Your task to perform on an android device: turn notification dots off Image 0: 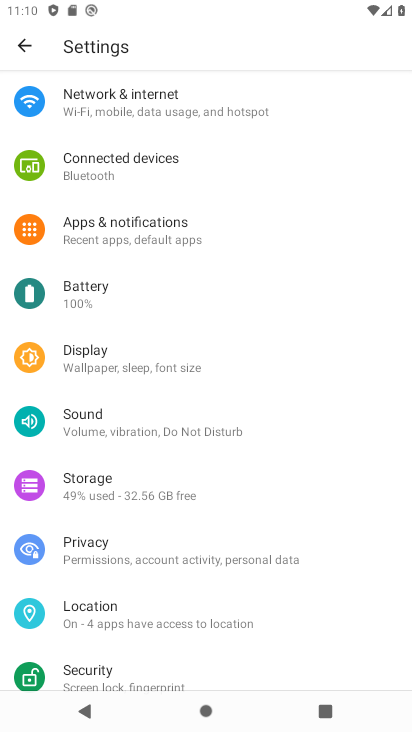
Step 0: click (152, 241)
Your task to perform on an android device: turn notification dots off Image 1: 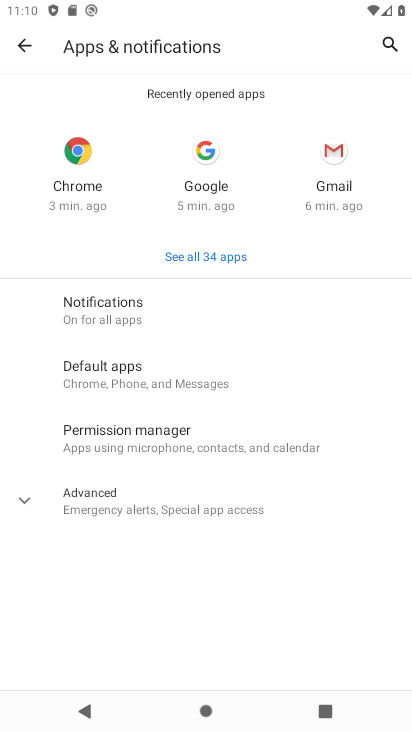
Step 1: click (136, 324)
Your task to perform on an android device: turn notification dots off Image 2: 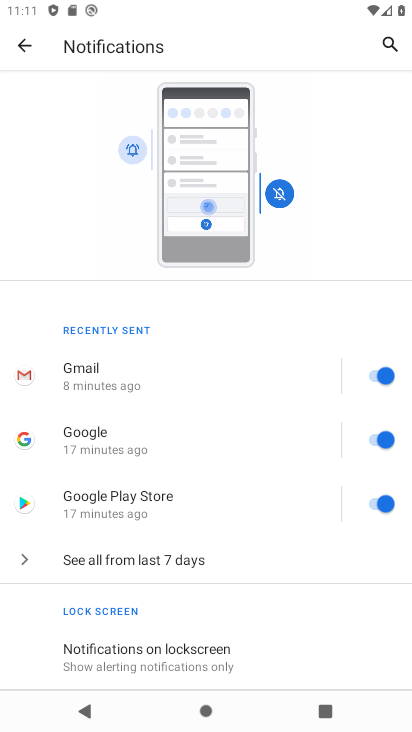
Step 2: drag from (286, 649) to (274, 203)
Your task to perform on an android device: turn notification dots off Image 3: 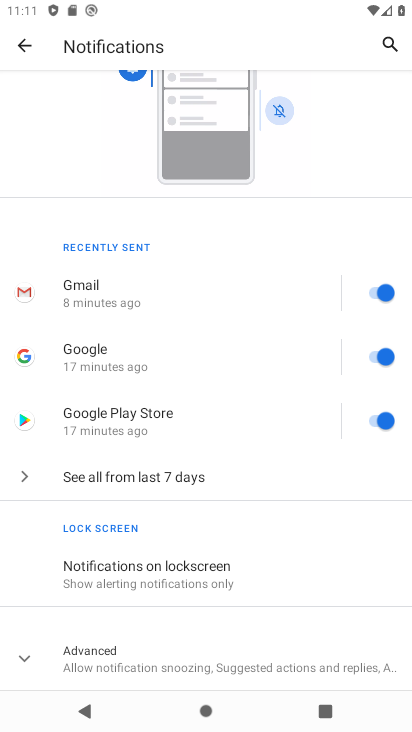
Step 3: click (227, 655)
Your task to perform on an android device: turn notification dots off Image 4: 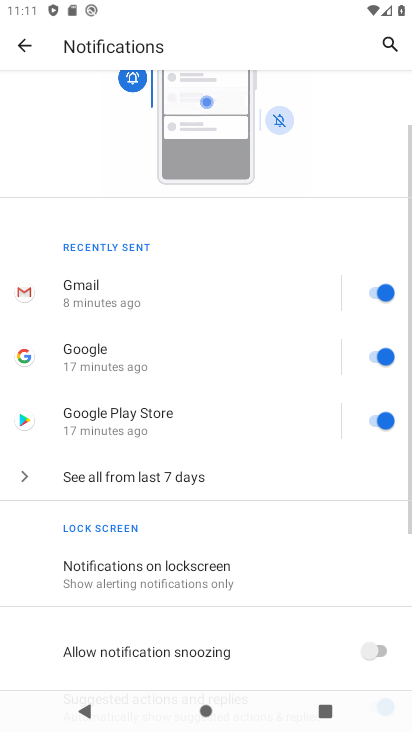
Step 4: drag from (227, 622) to (219, 268)
Your task to perform on an android device: turn notification dots off Image 5: 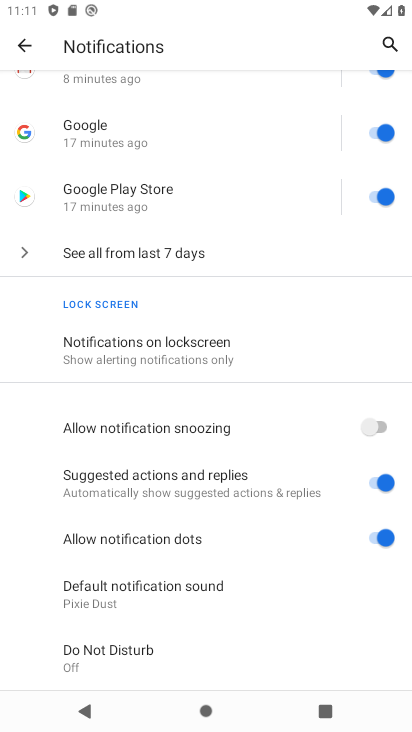
Step 5: click (370, 534)
Your task to perform on an android device: turn notification dots off Image 6: 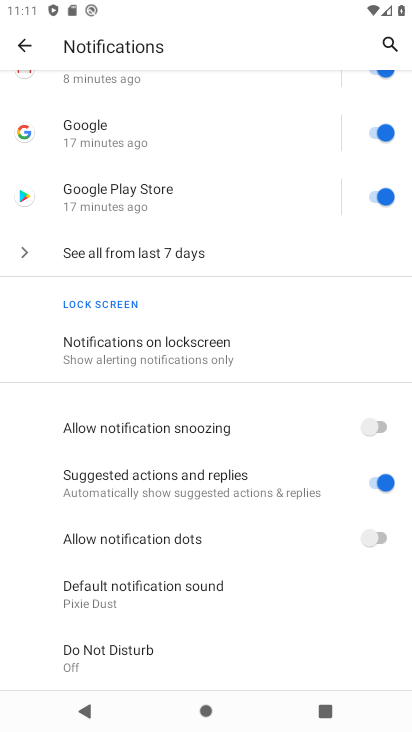
Step 6: task complete